Your task to perform on an android device: What's the weather? Image 0: 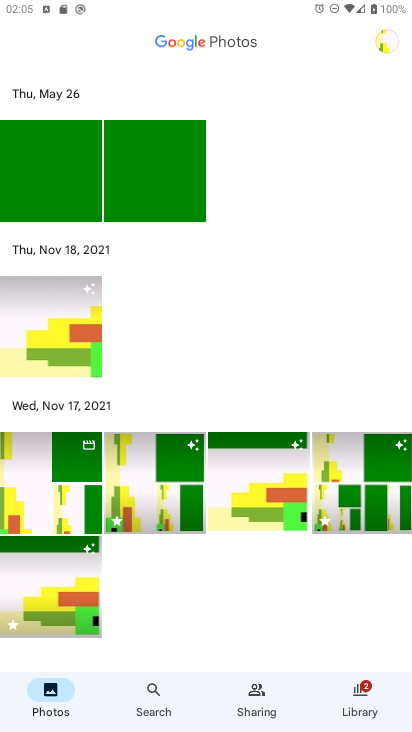
Step 0: press home button
Your task to perform on an android device: What's the weather? Image 1: 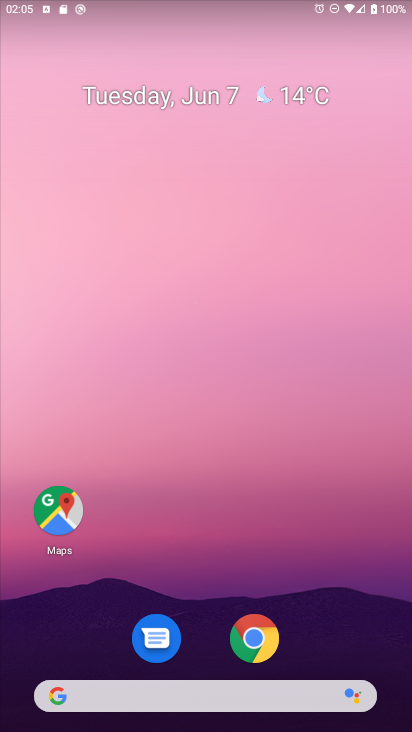
Step 1: click (194, 708)
Your task to perform on an android device: What's the weather? Image 2: 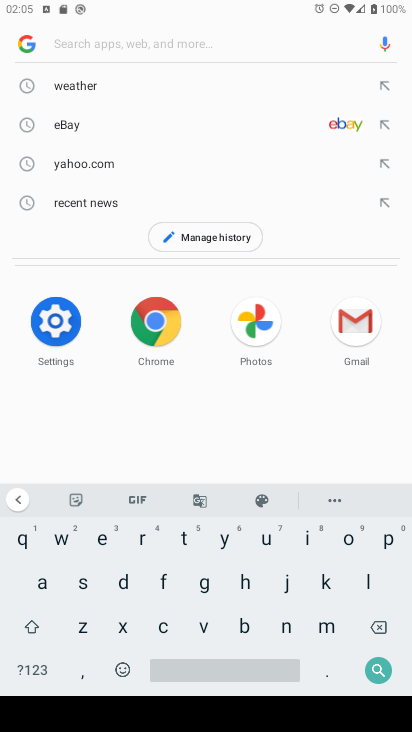
Step 2: click (94, 85)
Your task to perform on an android device: What's the weather? Image 3: 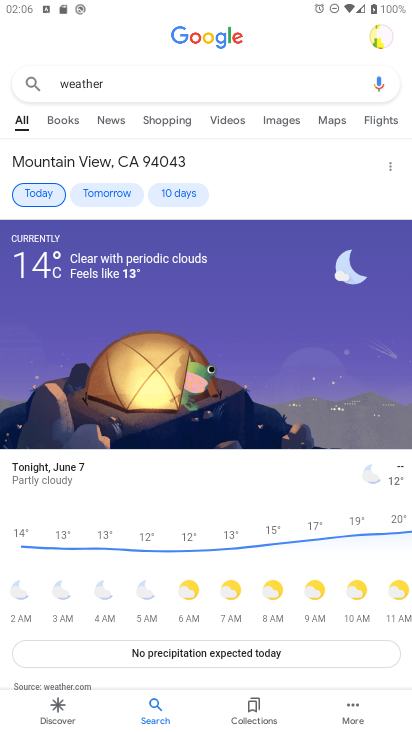
Step 3: task complete